Your task to perform on an android device: turn off sleep mode Image 0: 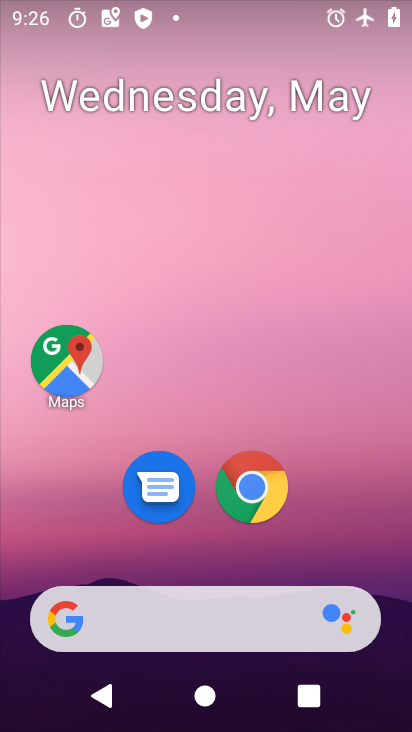
Step 0: drag from (184, 557) to (203, 196)
Your task to perform on an android device: turn off sleep mode Image 1: 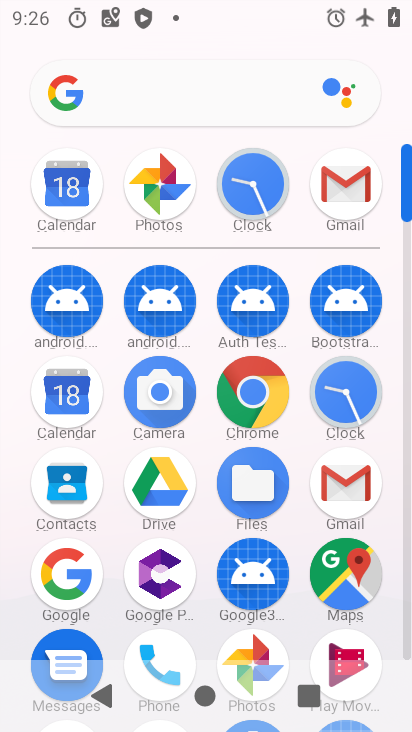
Step 1: drag from (209, 540) to (260, 246)
Your task to perform on an android device: turn off sleep mode Image 2: 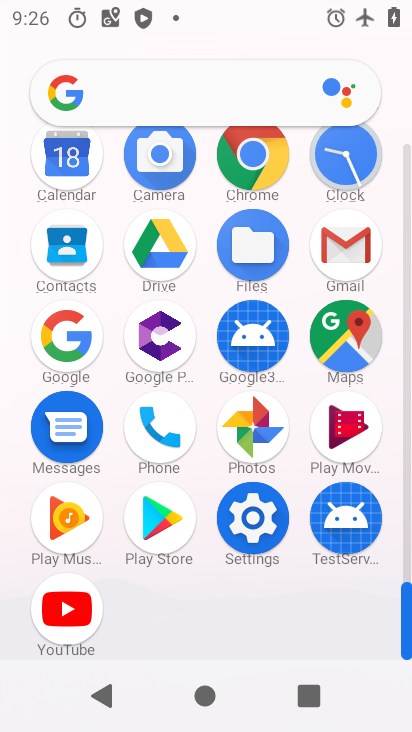
Step 2: click (254, 508)
Your task to perform on an android device: turn off sleep mode Image 3: 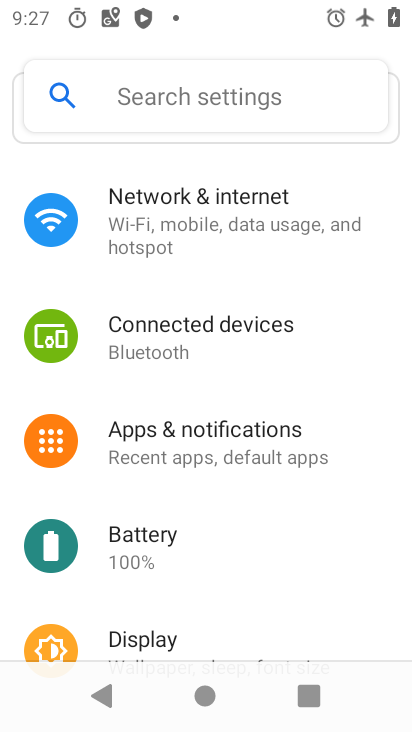
Step 3: drag from (177, 573) to (200, 317)
Your task to perform on an android device: turn off sleep mode Image 4: 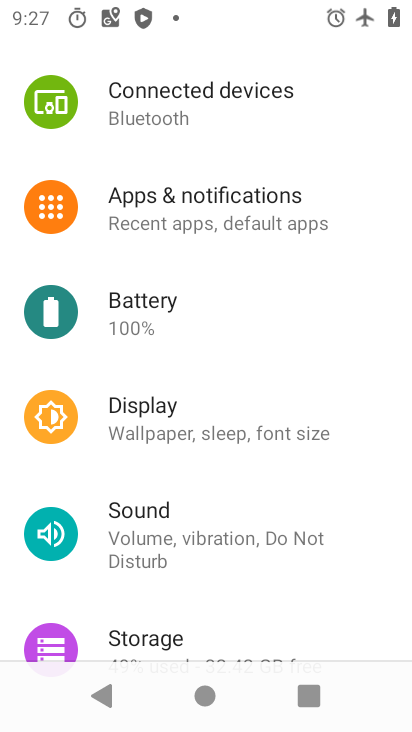
Step 4: click (160, 433)
Your task to perform on an android device: turn off sleep mode Image 5: 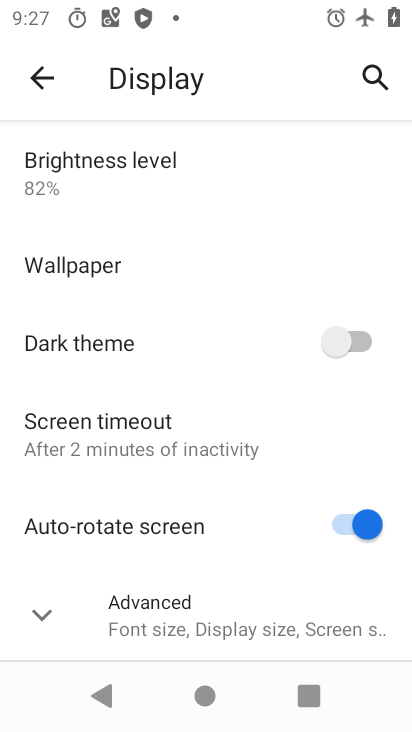
Step 5: drag from (177, 613) to (221, 417)
Your task to perform on an android device: turn off sleep mode Image 6: 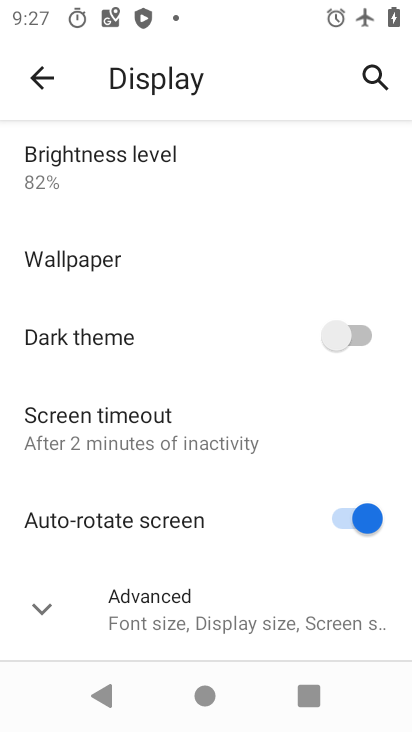
Step 6: click (124, 626)
Your task to perform on an android device: turn off sleep mode Image 7: 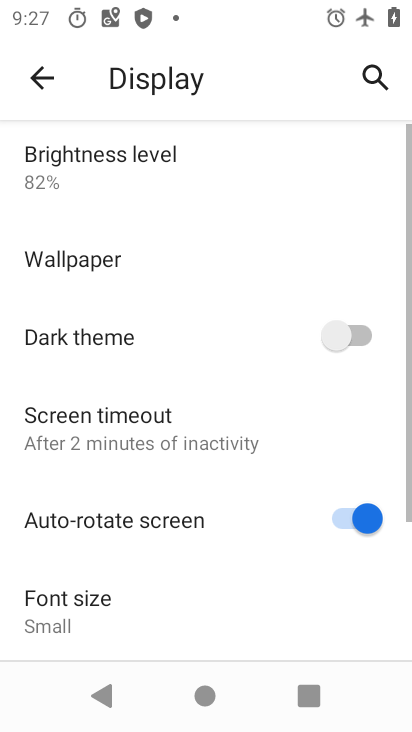
Step 7: click (96, 442)
Your task to perform on an android device: turn off sleep mode Image 8: 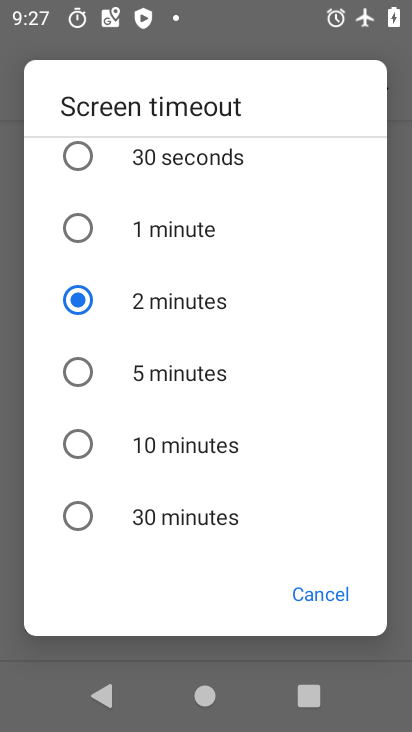
Step 8: click (165, 222)
Your task to perform on an android device: turn off sleep mode Image 9: 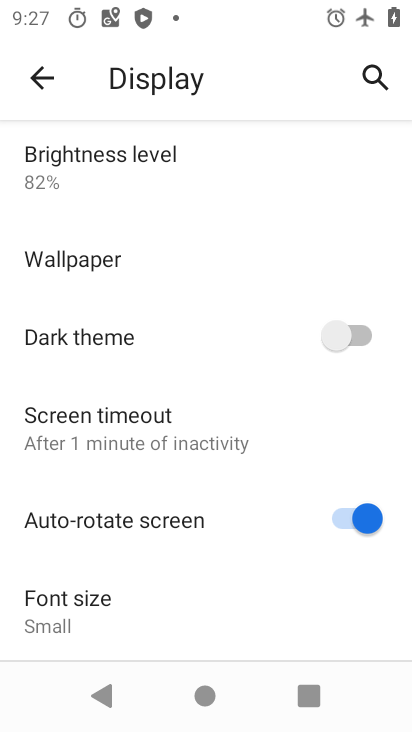
Step 9: task complete